Your task to perform on an android device: What's on my calendar today? Image 0: 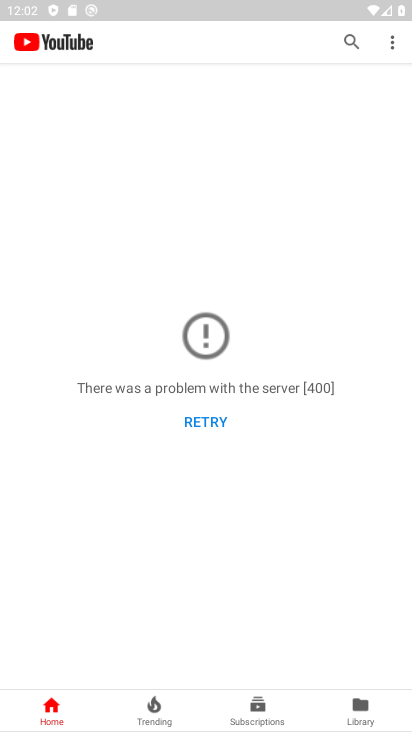
Step 0: press home button
Your task to perform on an android device: What's on my calendar today? Image 1: 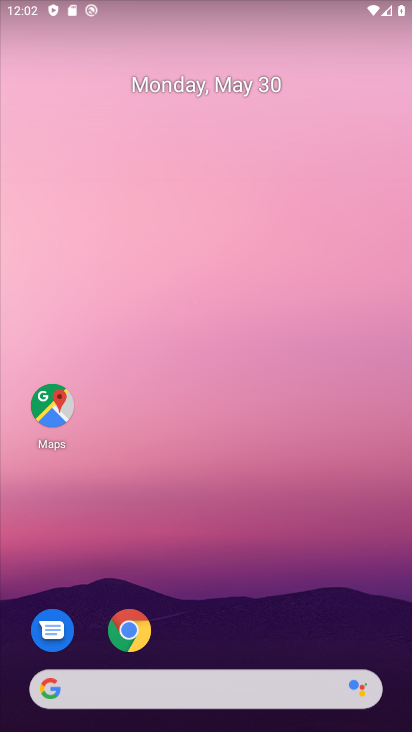
Step 1: drag from (229, 645) to (350, 43)
Your task to perform on an android device: What's on my calendar today? Image 2: 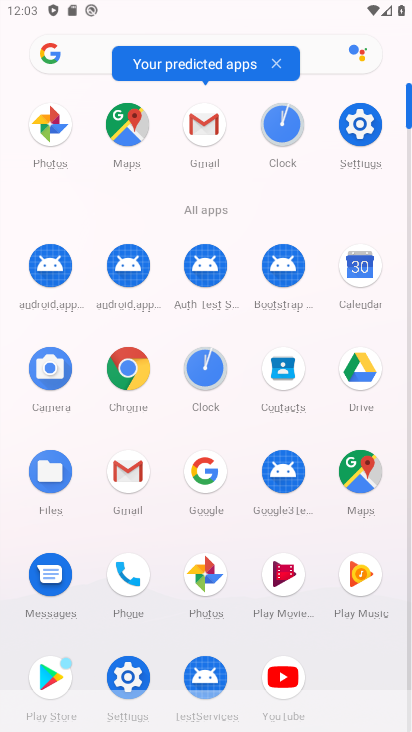
Step 2: click (366, 268)
Your task to perform on an android device: What's on my calendar today? Image 3: 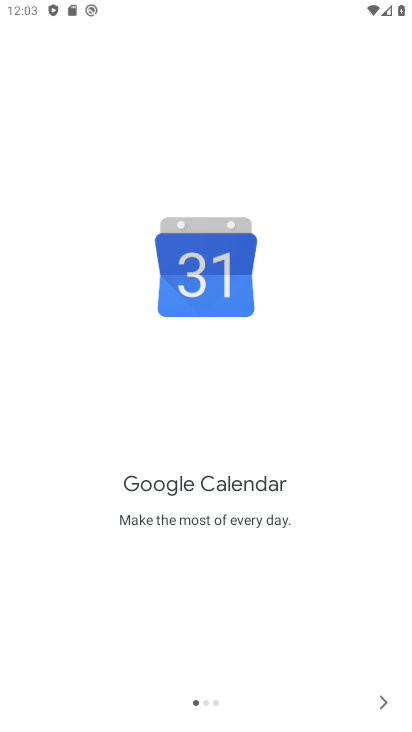
Step 3: click (374, 689)
Your task to perform on an android device: What's on my calendar today? Image 4: 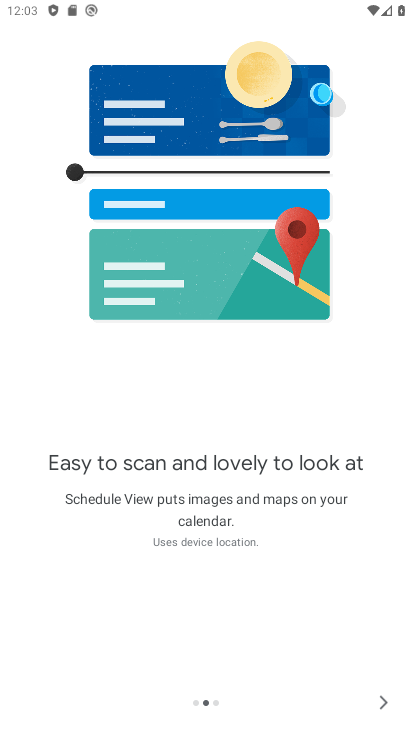
Step 4: click (380, 705)
Your task to perform on an android device: What's on my calendar today? Image 5: 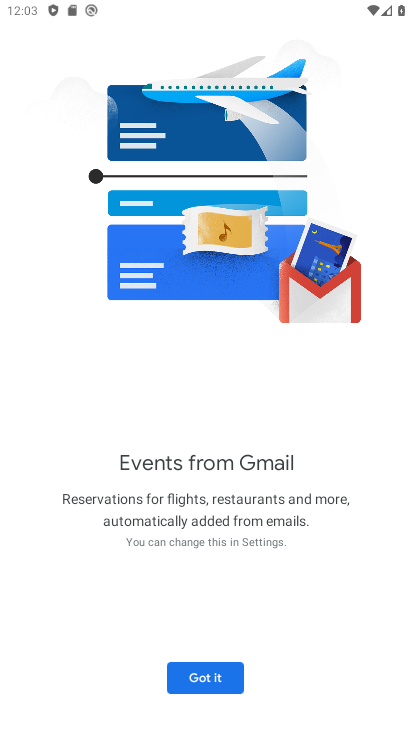
Step 5: click (198, 674)
Your task to perform on an android device: What's on my calendar today? Image 6: 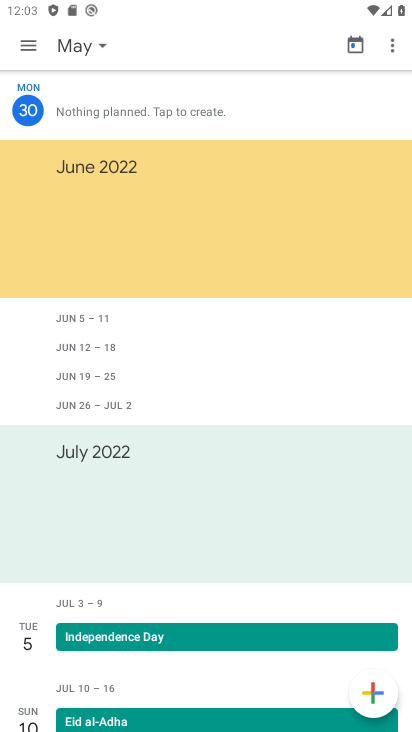
Step 6: click (83, 46)
Your task to perform on an android device: What's on my calendar today? Image 7: 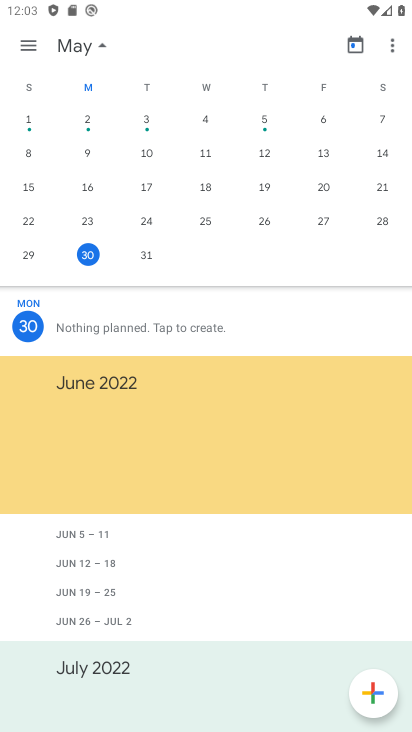
Step 7: click (90, 258)
Your task to perform on an android device: What's on my calendar today? Image 8: 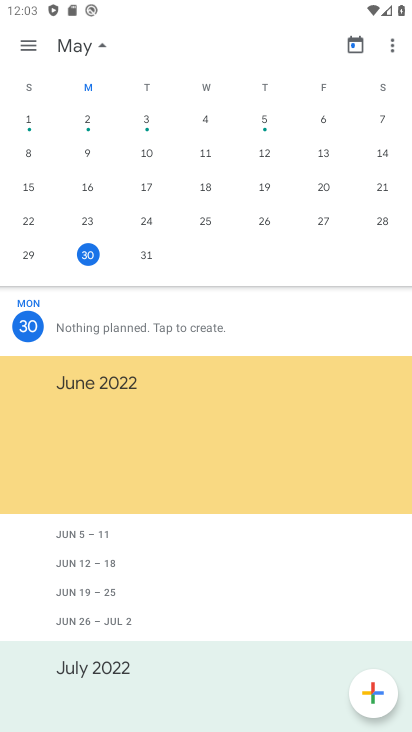
Step 8: click (28, 41)
Your task to perform on an android device: What's on my calendar today? Image 9: 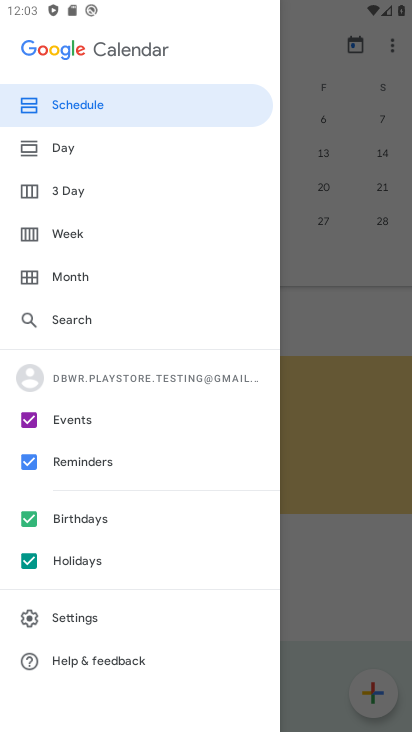
Step 9: click (79, 100)
Your task to perform on an android device: What's on my calendar today? Image 10: 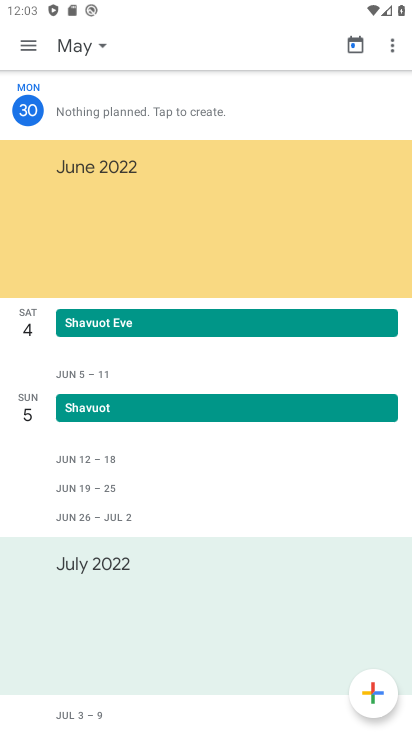
Step 10: task complete